Your task to perform on an android device: add a contact in the contacts app Image 0: 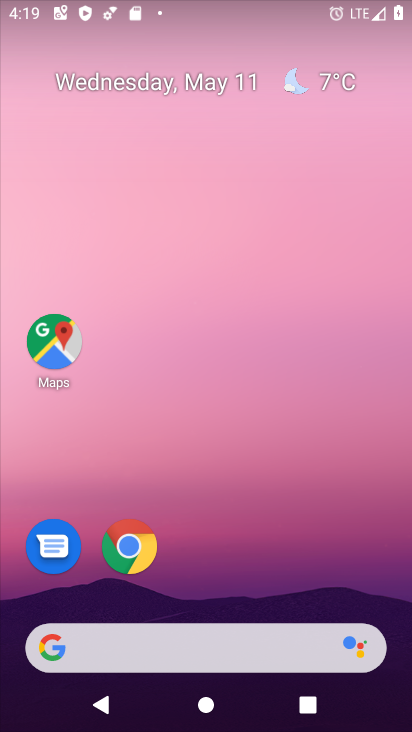
Step 0: drag from (342, 640) to (406, 211)
Your task to perform on an android device: add a contact in the contacts app Image 1: 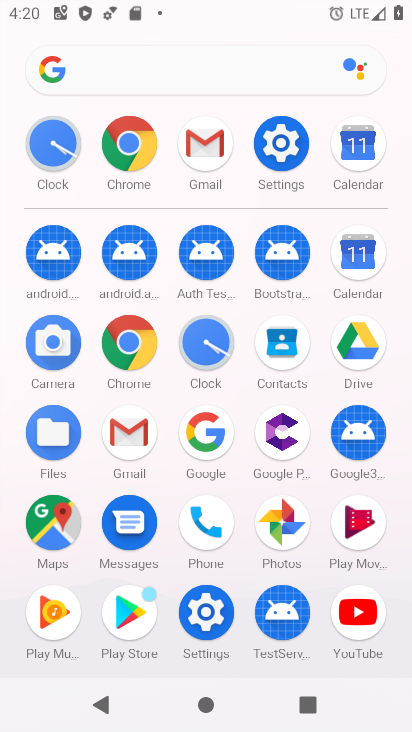
Step 1: click (278, 351)
Your task to perform on an android device: add a contact in the contacts app Image 2: 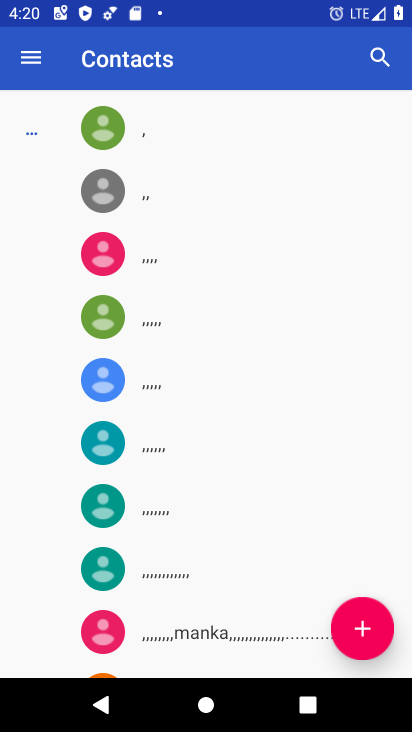
Step 2: click (352, 618)
Your task to perform on an android device: add a contact in the contacts app Image 3: 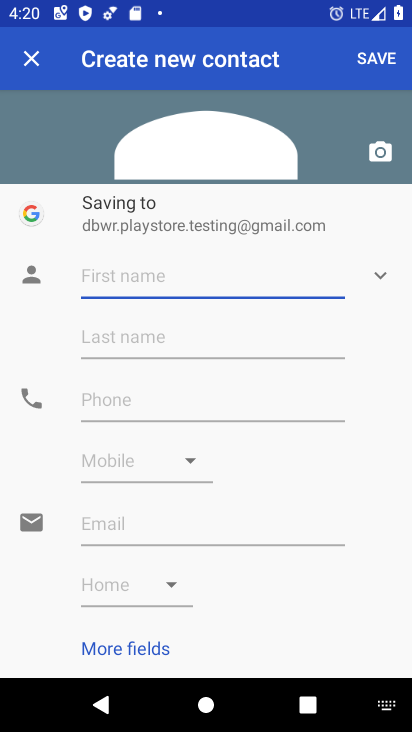
Step 3: click (198, 273)
Your task to perform on an android device: add a contact in the contacts app Image 4: 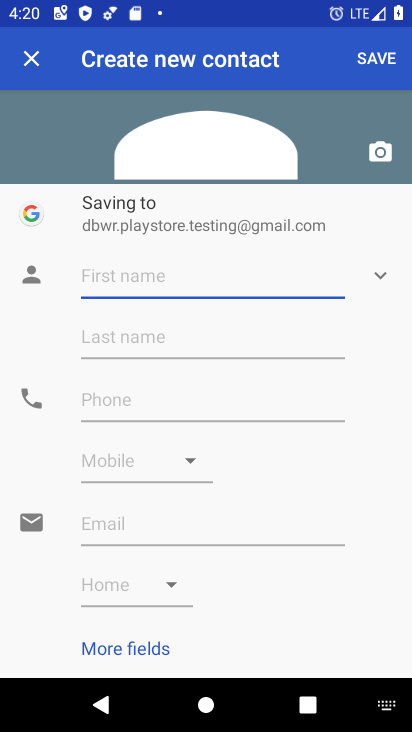
Step 4: type "dfghbnb"
Your task to perform on an android device: add a contact in the contacts app Image 5: 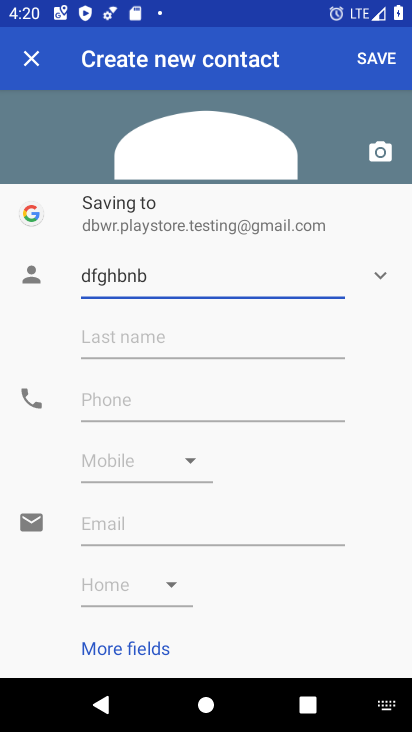
Step 5: click (244, 407)
Your task to perform on an android device: add a contact in the contacts app Image 6: 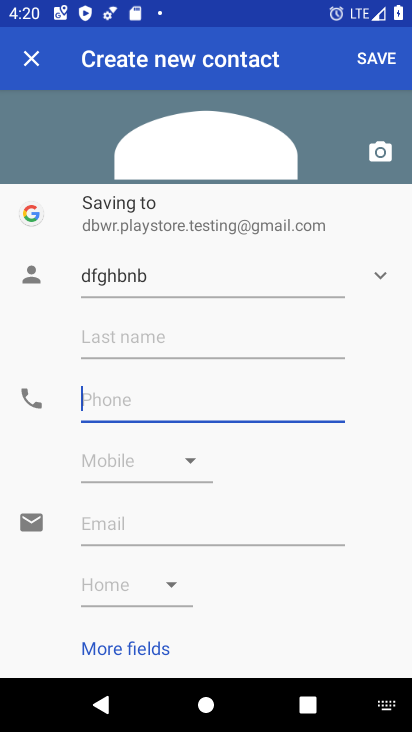
Step 6: type "65676878768"
Your task to perform on an android device: add a contact in the contacts app Image 7: 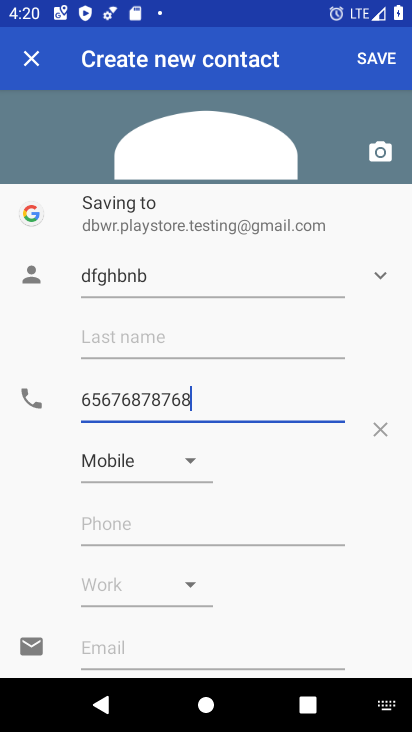
Step 7: click (369, 59)
Your task to perform on an android device: add a contact in the contacts app Image 8: 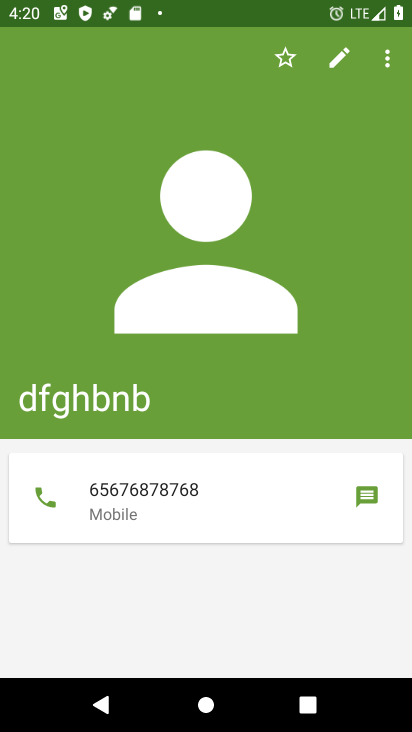
Step 8: task complete